Your task to perform on an android device: change the upload size in google photos Image 0: 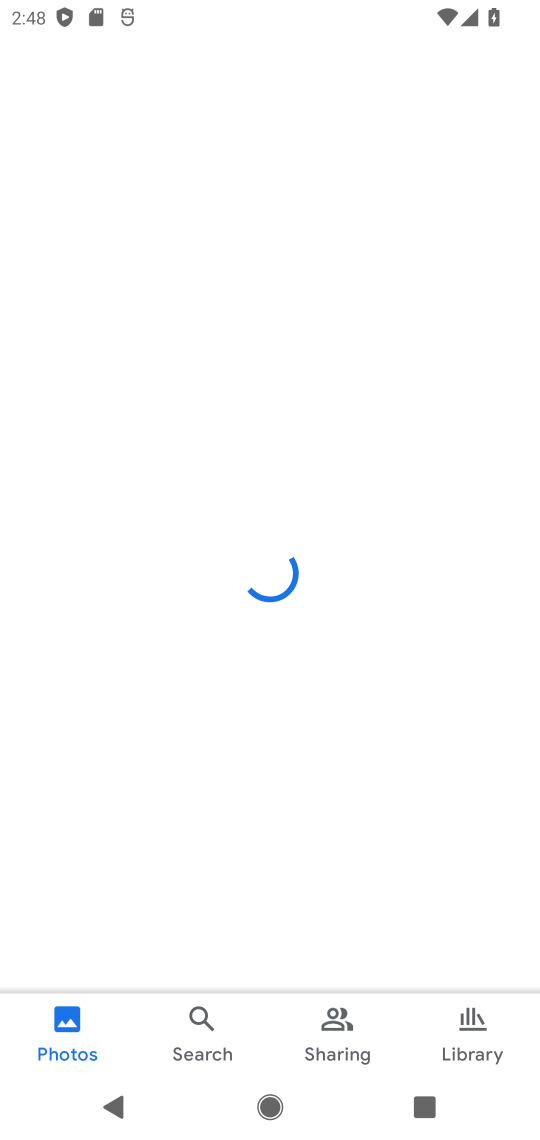
Step 0: press home button
Your task to perform on an android device: change the upload size in google photos Image 1: 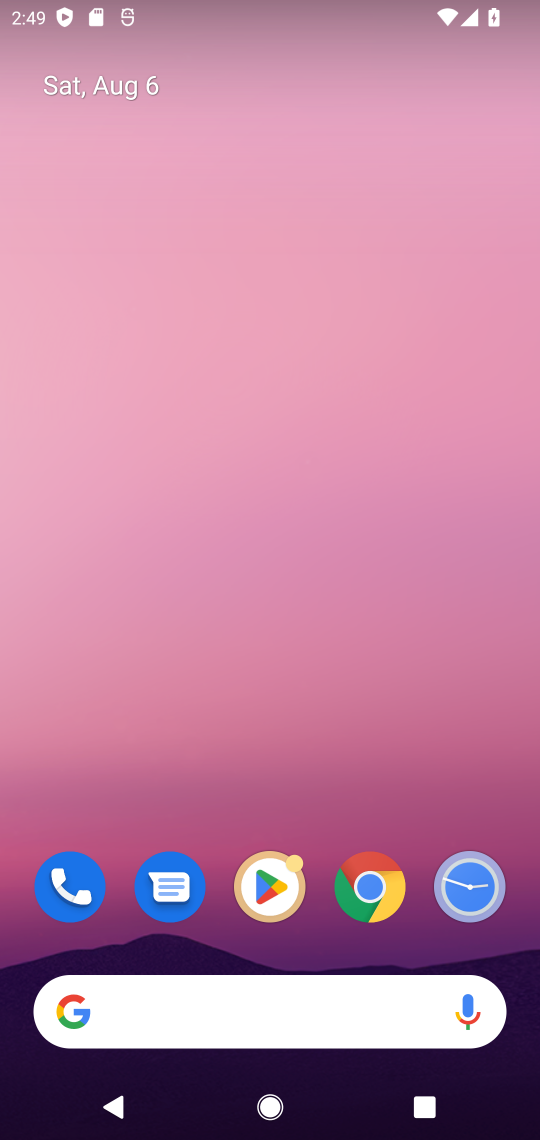
Step 1: drag from (325, 790) to (303, 166)
Your task to perform on an android device: change the upload size in google photos Image 2: 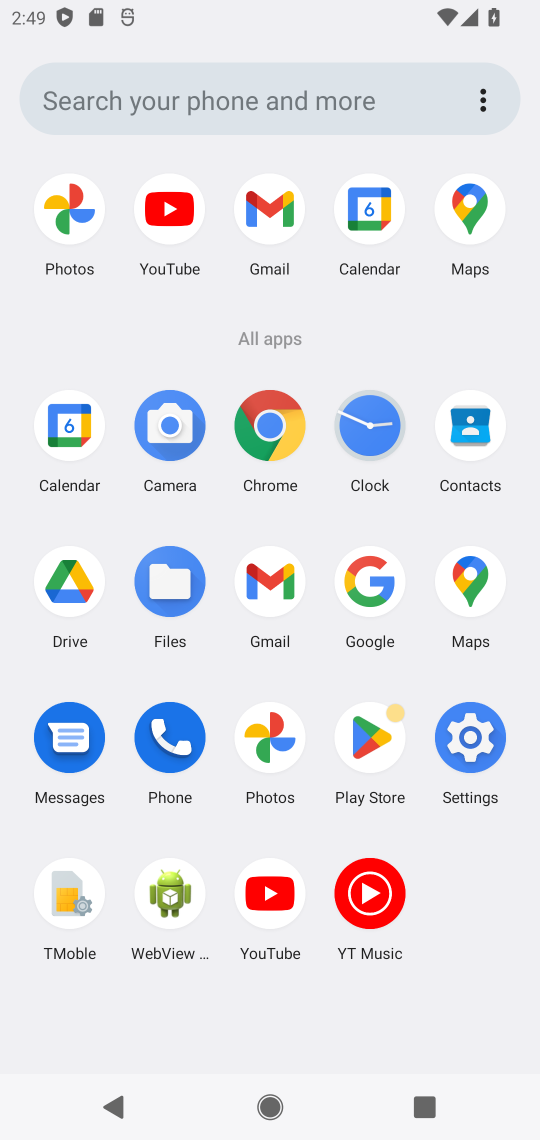
Step 2: click (265, 737)
Your task to perform on an android device: change the upload size in google photos Image 3: 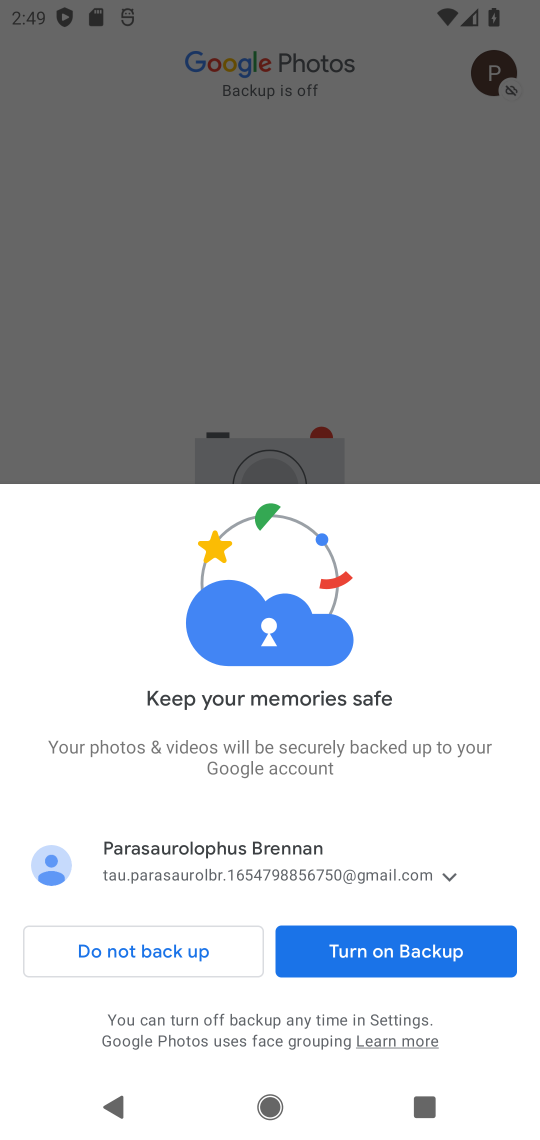
Step 3: click (133, 951)
Your task to perform on an android device: change the upload size in google photos Image 4: 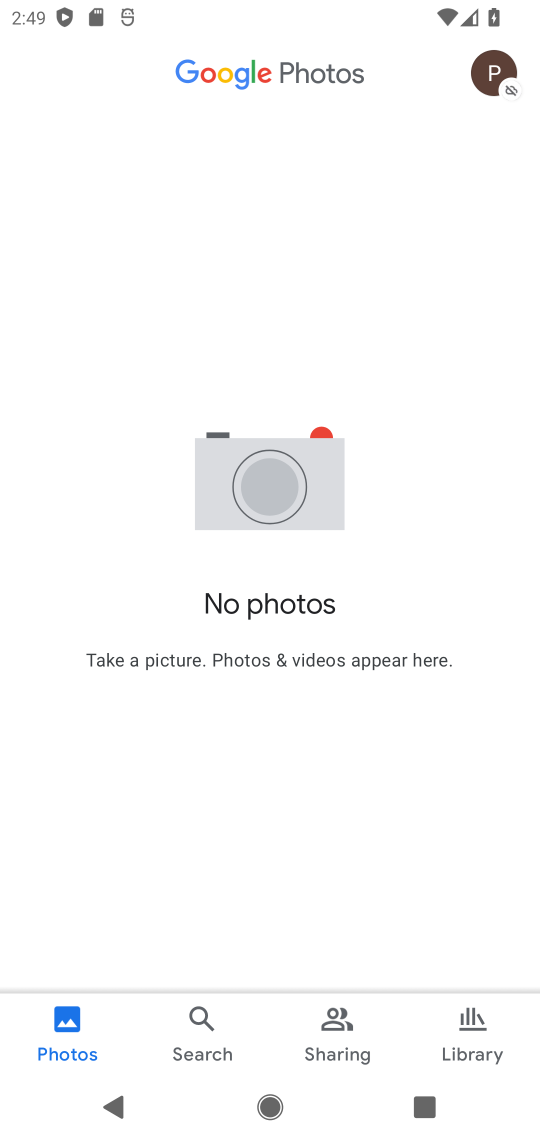
Step 4: click (490, 75)
Your task to perform on an android device: change the upload size in google photos Image 5: 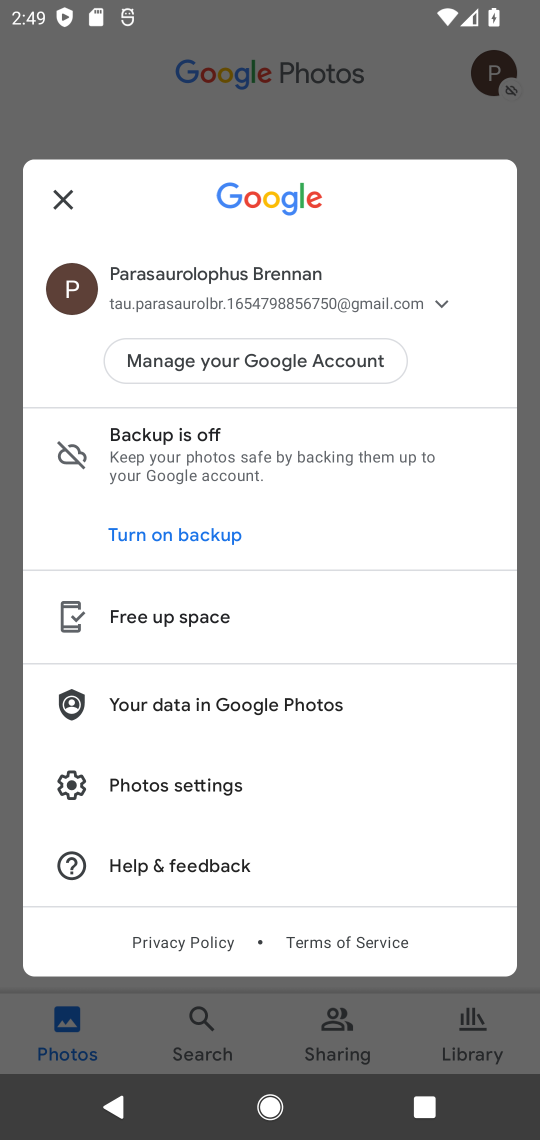
Step 5: click (189, 789)
Your task to perform on an android device: change the upload size in google photos Image 6: 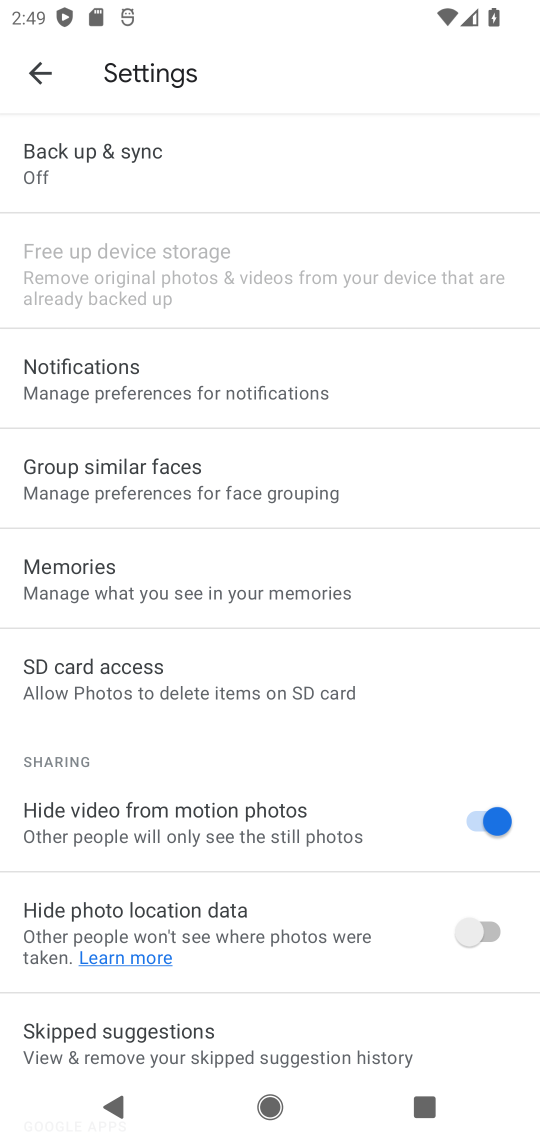
Step 6: click (122, 150)
Your task to perform on an android device: change the upload size in google photos Image 7: 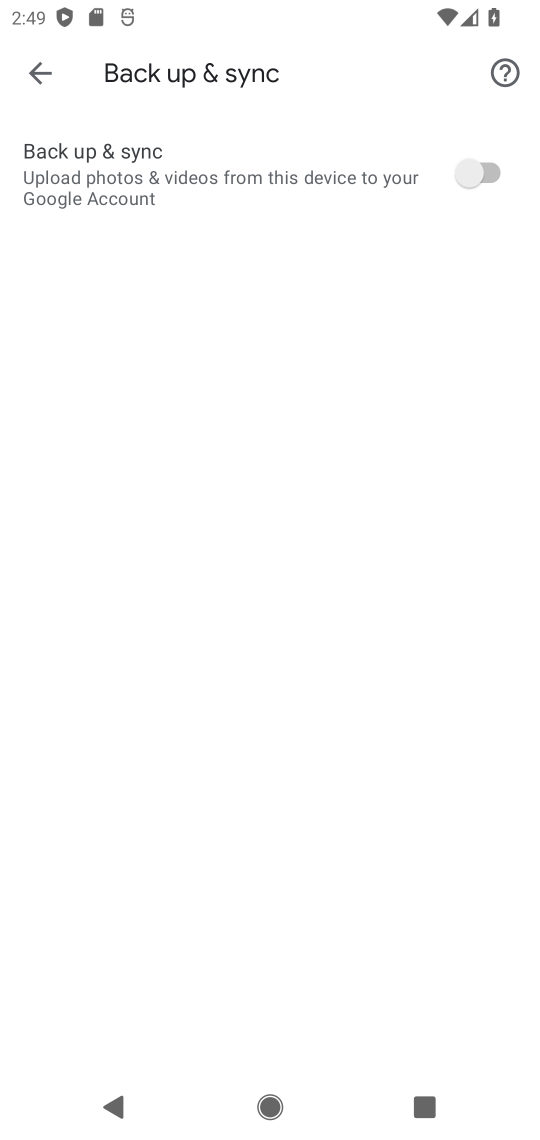
Step 7: click (122, 150)
Your task to perform on an android device: change the upload size in google photos Image 8: 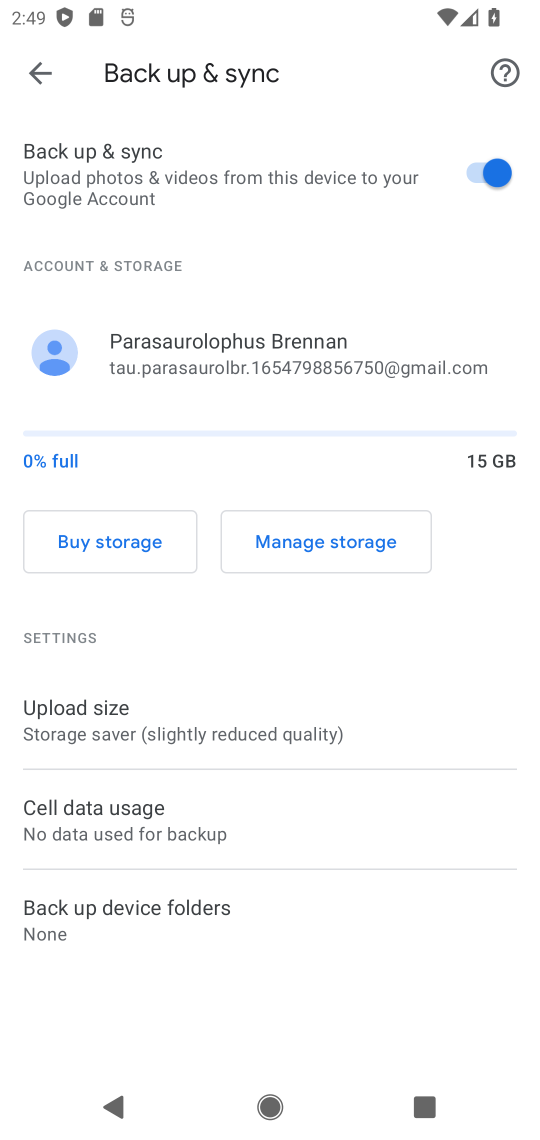
Step 8: click (113, 728)
Your task to perform on an android device: change the upload size in google photos Image 9: 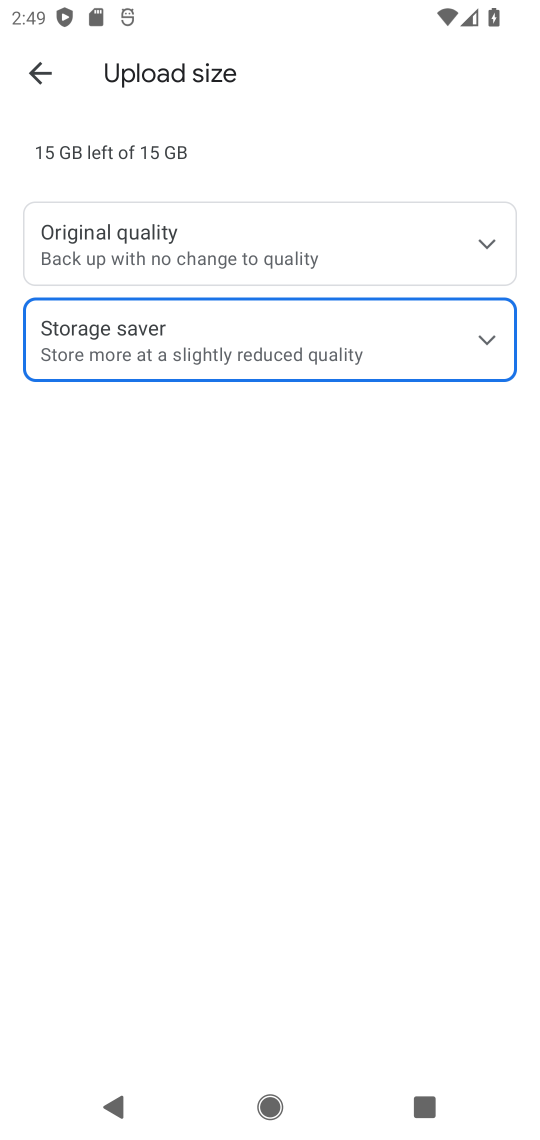
Step 9: click (175, 274)
Your task to perform on an android device: change the upload size in google photos Image 10: 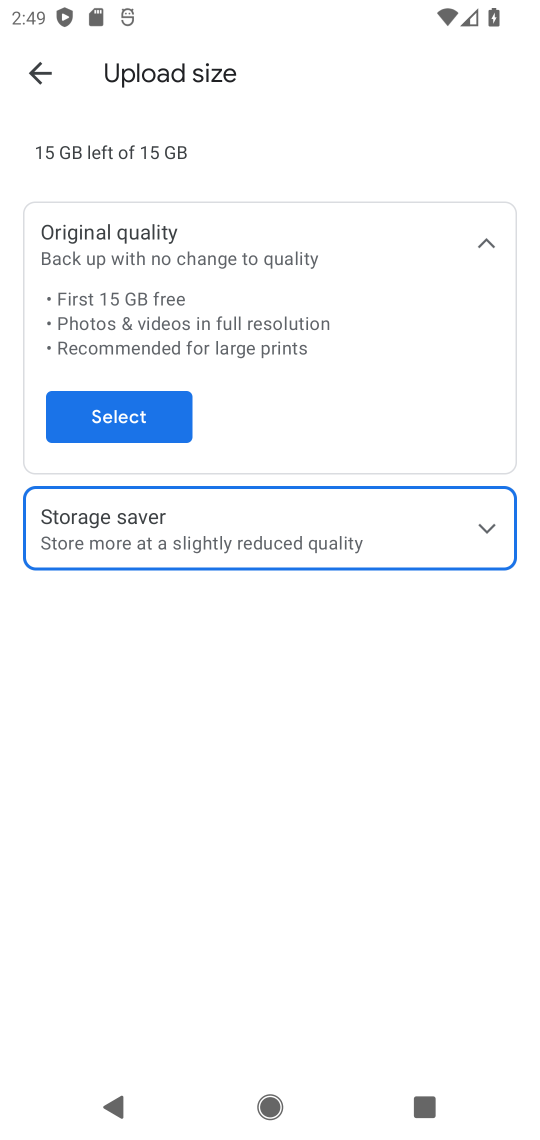
Step 10: click (101, 418)
Your task to perform on an android device: change the upload size in google photos Image 11: 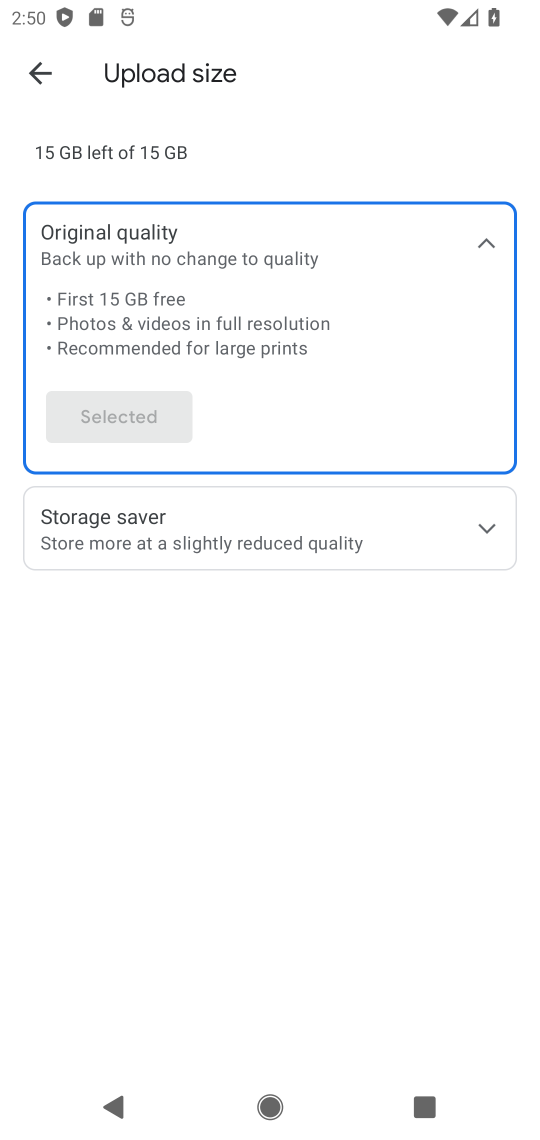
Step 11: task complete